Your task to perform on an android device: Search for the most popular books on Goodreads Image 0: 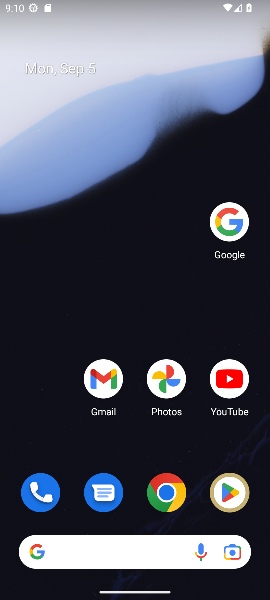
Step 0: click (227, 213)
Your task to perform on an android device: Search for the most popular books on Goodreads Image 1: 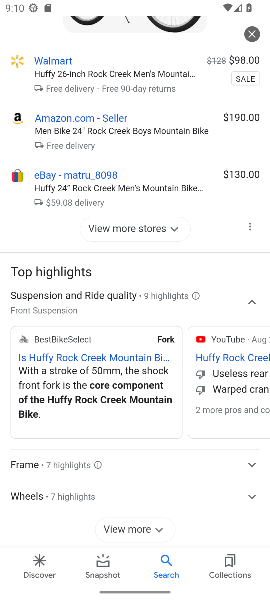
Step 1: drag from (68, 368) to (64, 414)
Your task to perform on an android device: Search for the most popular books on Goodreads Image 2: 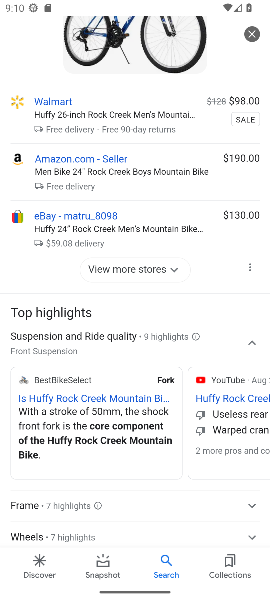
Step 2: drag from (148, 80) to (166, 419)
Your task to perform on an android device: Search for the most popular books on Goodreads Image 3: 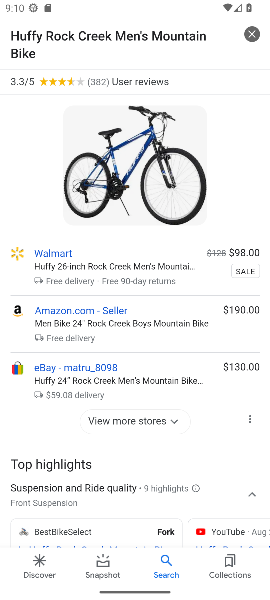
Step 3: drag from (87, 124) to (88, 297)
Your task to perform on an android device: Search for the most popular books on Goodreads Image 4: 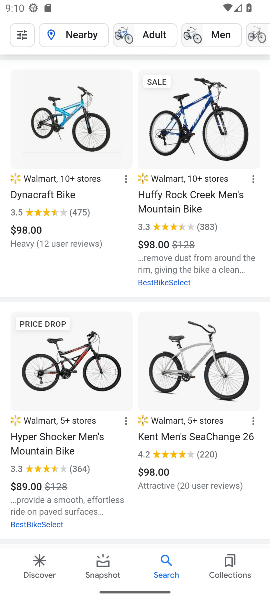
Step 4: click (128, 391)
Your task to perform on an android device: Search for the most popular books on Goodreads Image 5: 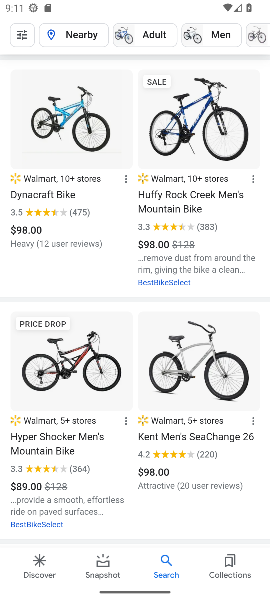
Step 5: drag from (165, 63) to (163, 428)
Your task to perform on an android device: Search for the most popular books on Goodreads Image 6: 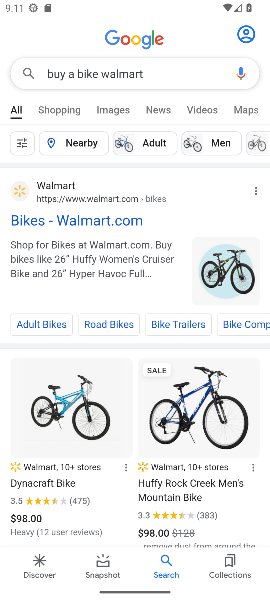
Step 6: click (168, 77)
Your task to perform on an android device: Search for the most popular books on Goodreads Image 7: 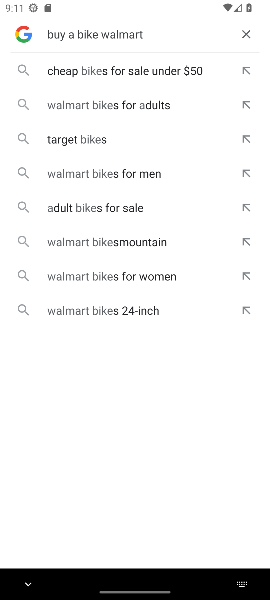
Step 7: click (242, 36)
Your task to perform on an android device: Search for the most popular books on Goodreads Image 8: 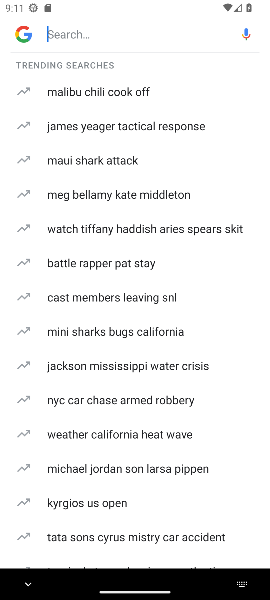
Step 8: click (126, 35)
Your task to perform on an android device: Search for the most popular books on Goodreads Image 9: 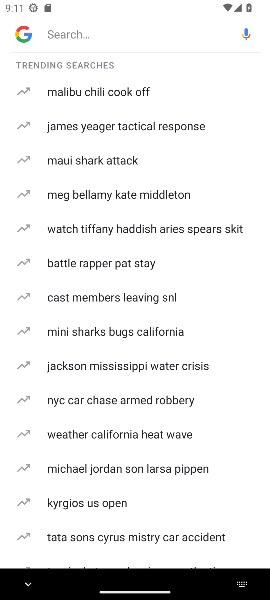
Step 9: type "the most popular books on Goodreads "
Your task to perform on an android device: Search for the most popular books on Goodreads Image 10: 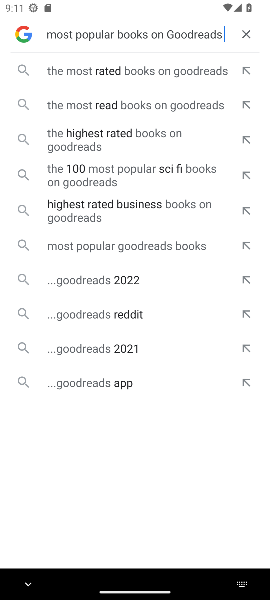
Step 10: click (90, 69)
Your task to perform on an android device: Search for the most popular books on Goodreads Image 11: 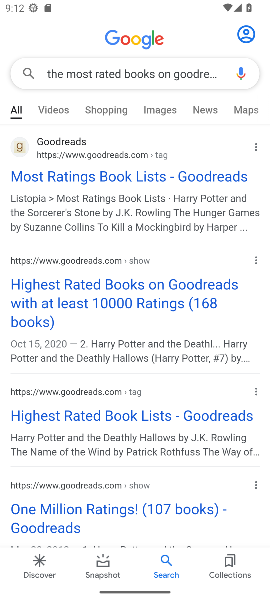
Step 11: click (132, 174)
Your task to perform on an android device: Search for the most popular books on Goodreads Image 12: 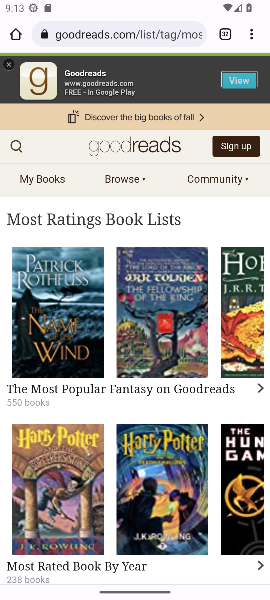
Step 12: click (13, 63)
Your task to perform on an android device: Search for the most popular books on Goodreads Image 13: 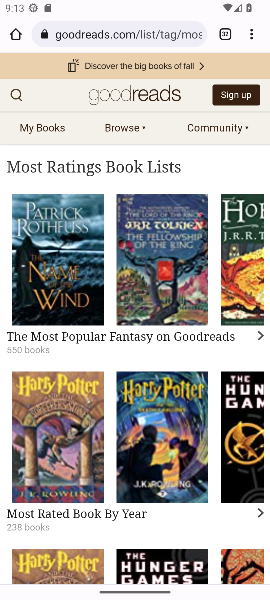
Step 13: click (183, 123)
Your task to perform on an android device: Search for the most popular books on Goodreads Image 14: 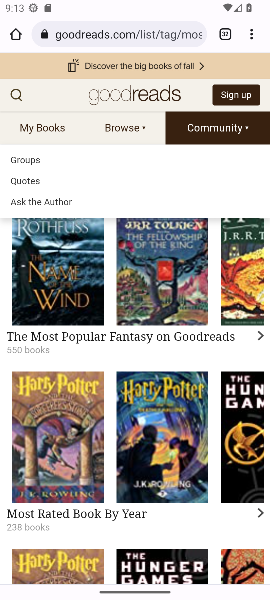
Step 14: task complete